Your task to perform on an android device: all mails in gmail Image 0: 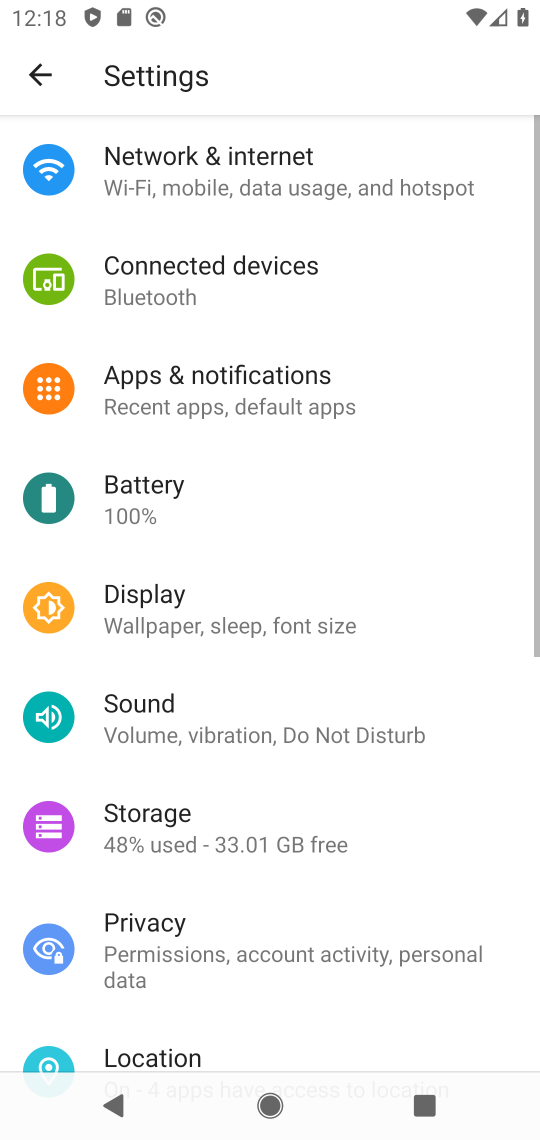
Step 0: press home button
Your task to perform on an android device: all mails in gmail Image 1: 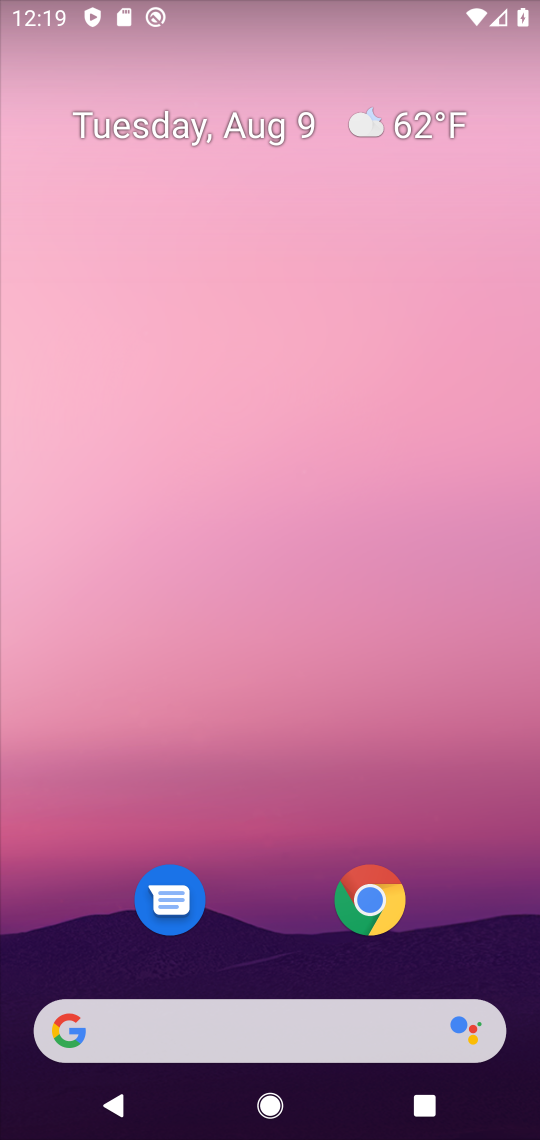
Step 1: drag from (307, 829) to (387, 333)
Your task to perform on an android device: all mails in gmail Image 2: 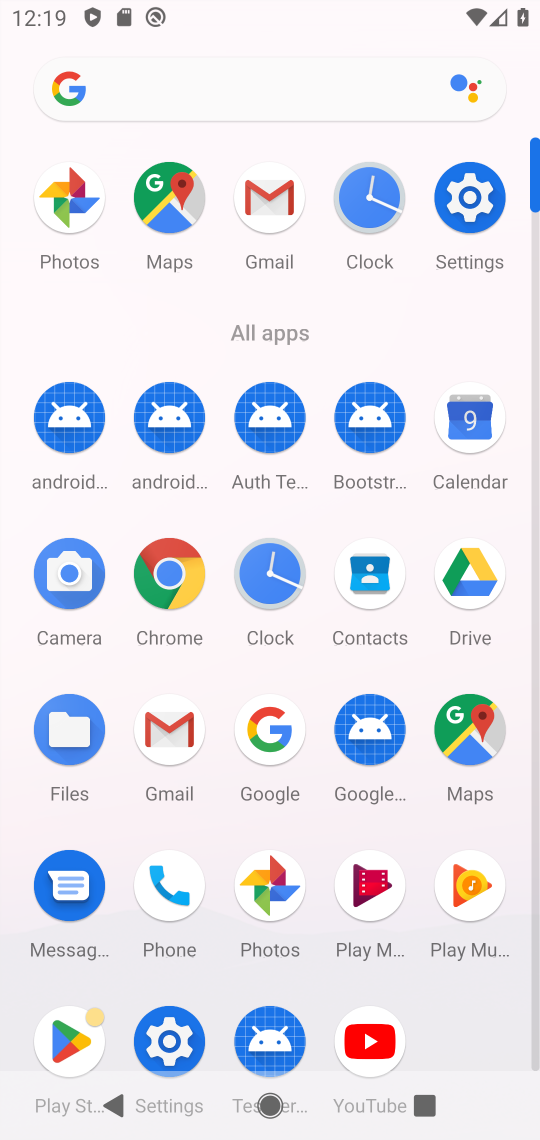
Step 2: click (262, 213)
Your task to perform on an android device: all mails in gmail Image 3: 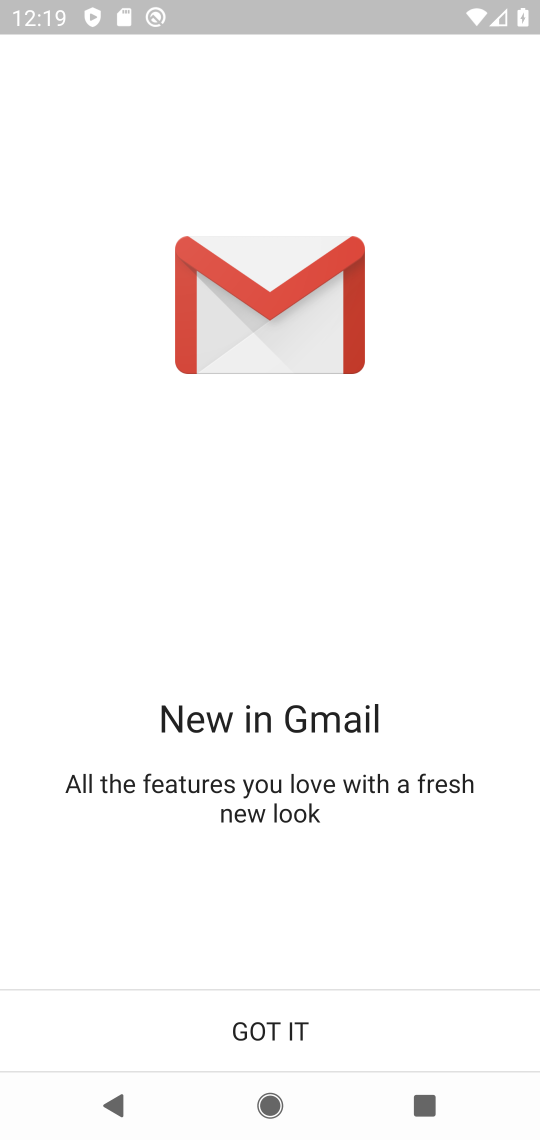
Step 3: click (266, 999)
Your task to perform on an android device: all mails in gmail Image 4: 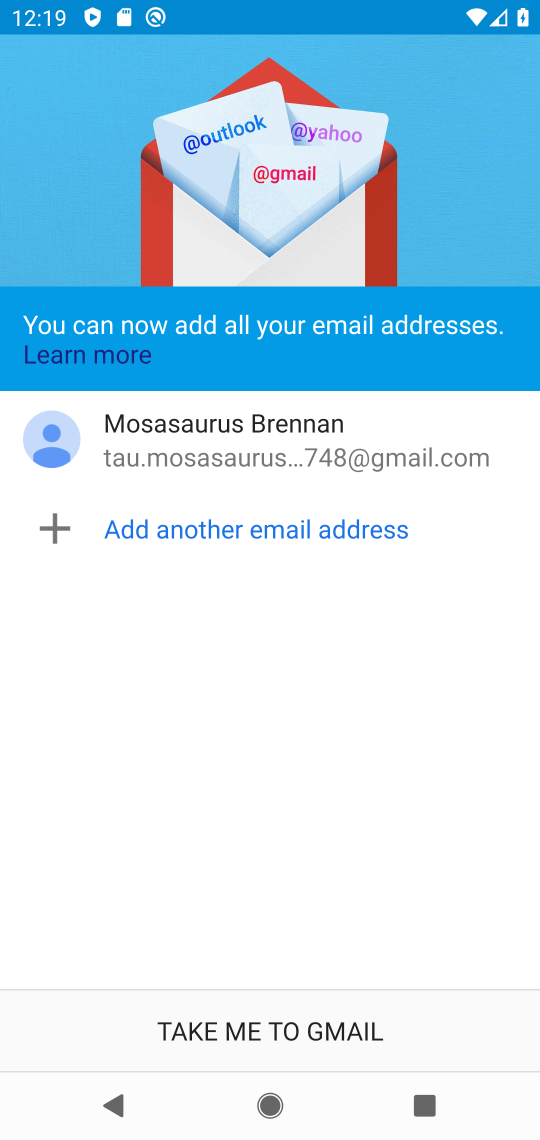
Step 4: click (249, 1030)
Your task to perform on an android device: all mails in gmail Image 5: 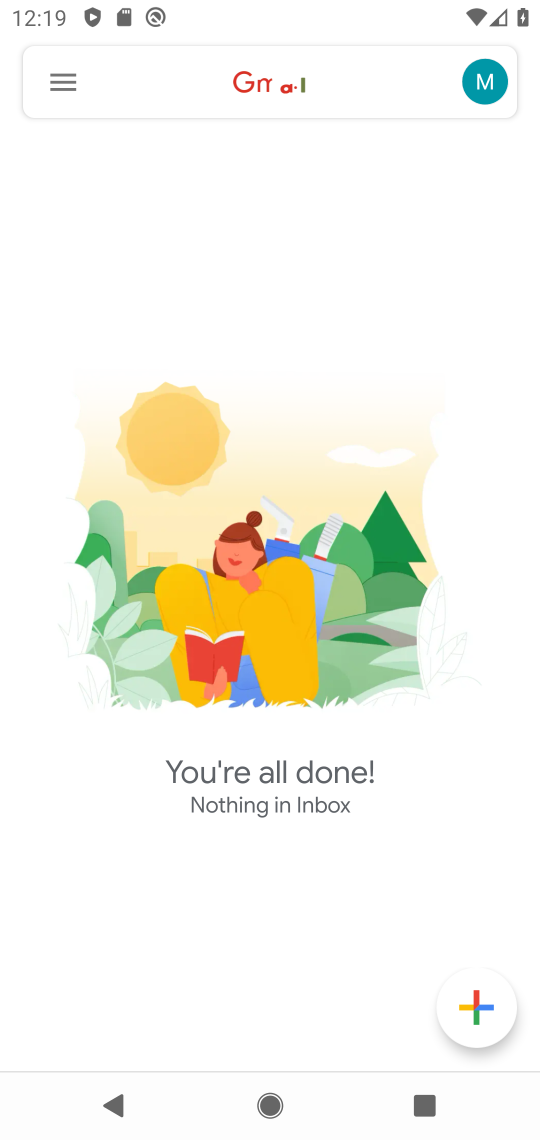
Step 5: click (72, 95)
Your task to perform on an android device: all mails in gmail Image 6: 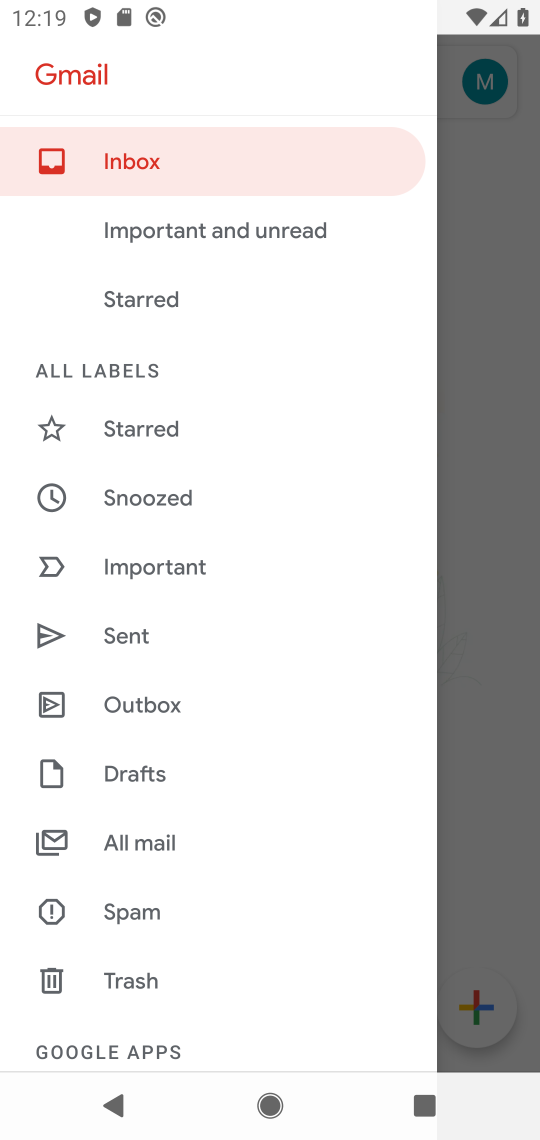
Step 6: click (140, 841)
Your task to perform on an android device: all mails in gmail Image 7: 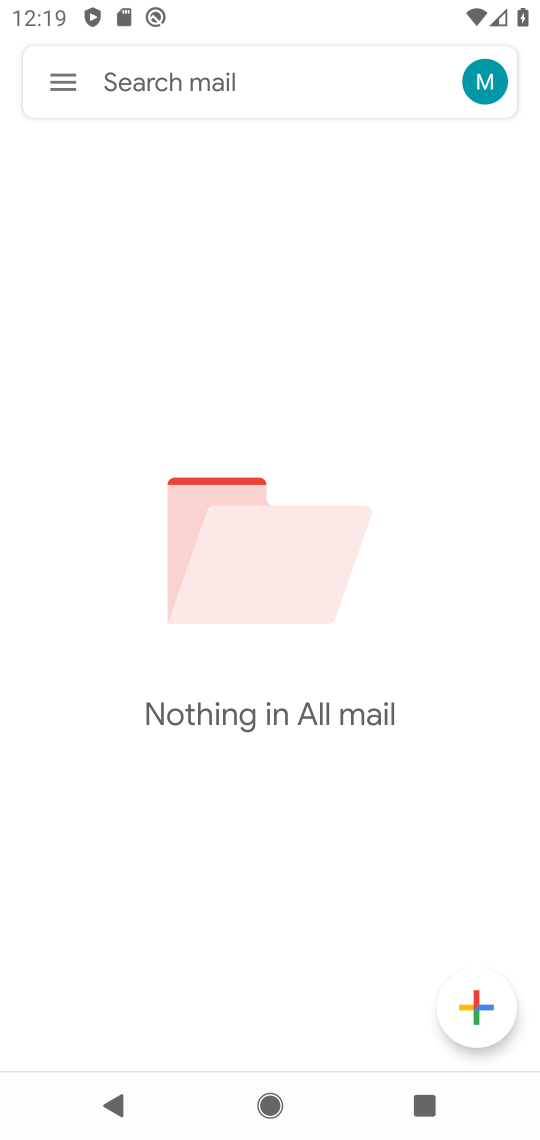
Step 7: task complete